Your task to perform on an android device: Open the Play Movies app and select the watchlist tab. Image 0: 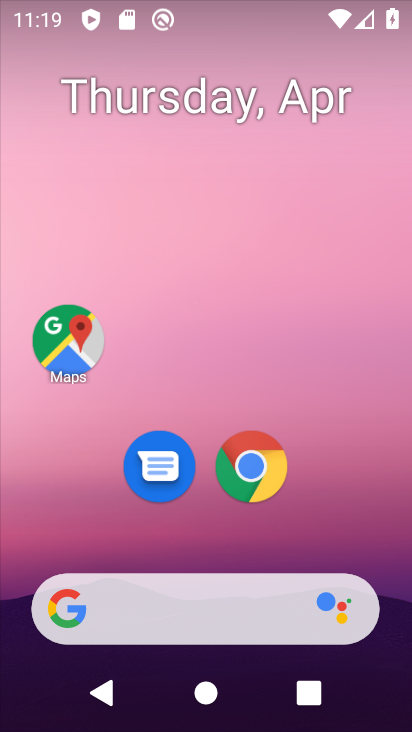
Step 0: drag from (370, 508) to (271, 27)
Your task to perform on an android device: Open the Play Movies app and select the watchlist tab. Image 1: 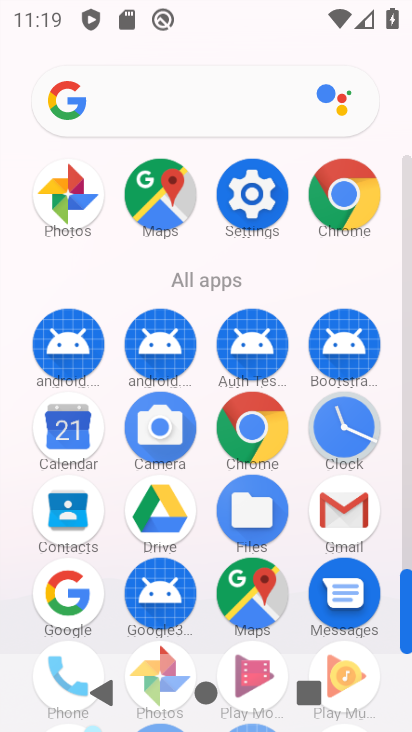
Step 1: drag from (1, 567) to (3, 222)
Your task to perform on an android device: Open the Play Movies app and select the watchlist tab. Image 2: 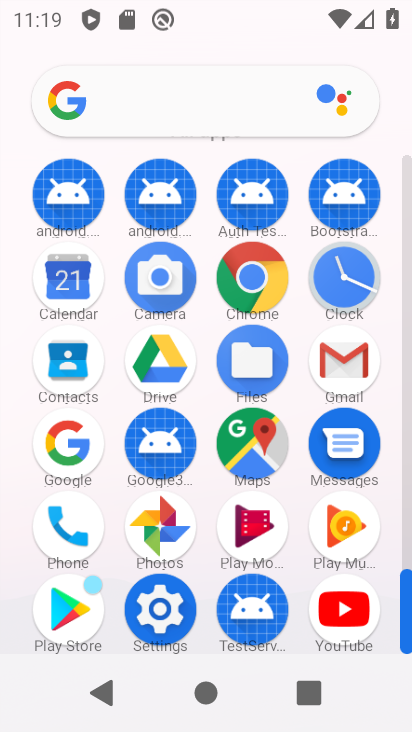
Step 2: click (245, 517)
Your task to perform on an android device: Open the Play Movies app and select the watchlist tab. Image 3: 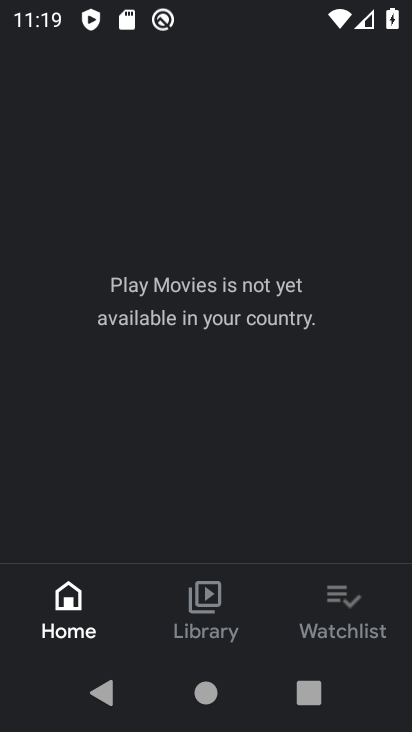
Step 3: click (337, 625)
Your task to perform on an android device: Open the Play Movies app and select the watchlist tab. Image 4: 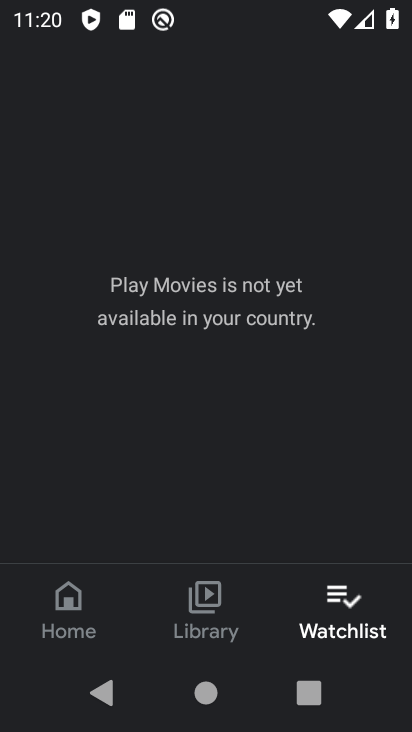
Step 4: task complete